Your task to perform on an android device: Go to eBay Image 0: 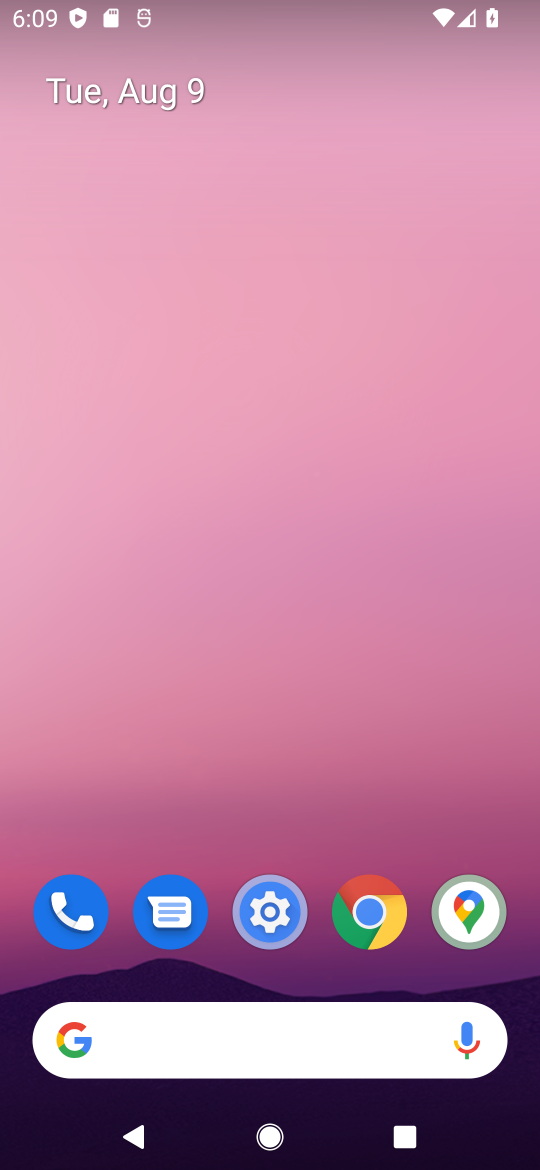
Step 0: click (72, 1040)
Your task to perform on an android device: Go to eBay Image 1: 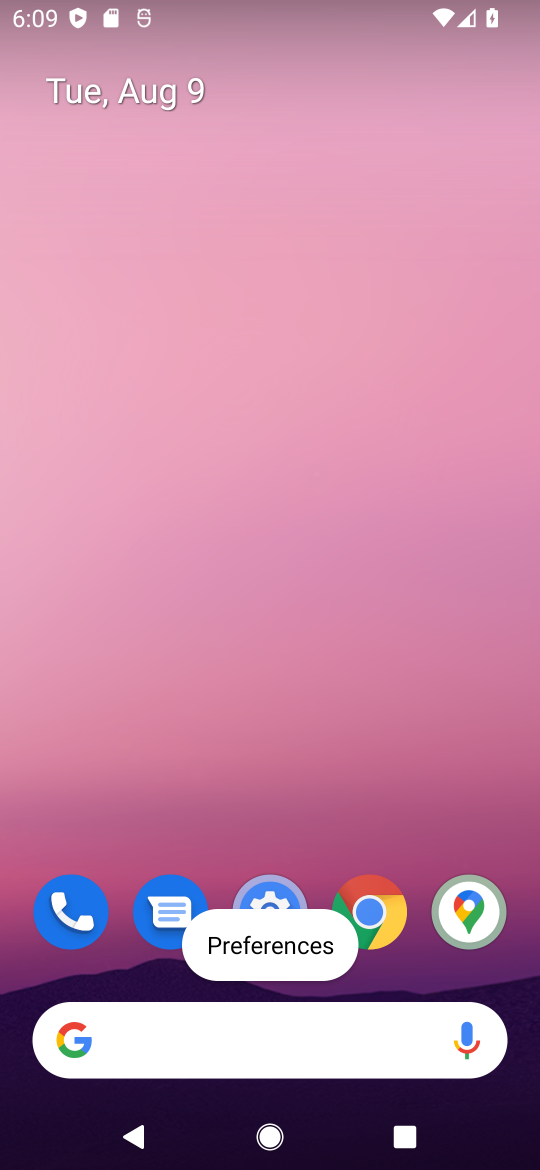
Step 1: click (58, 1052)
Your task to perform on an android device: Go to eBay Image 2: 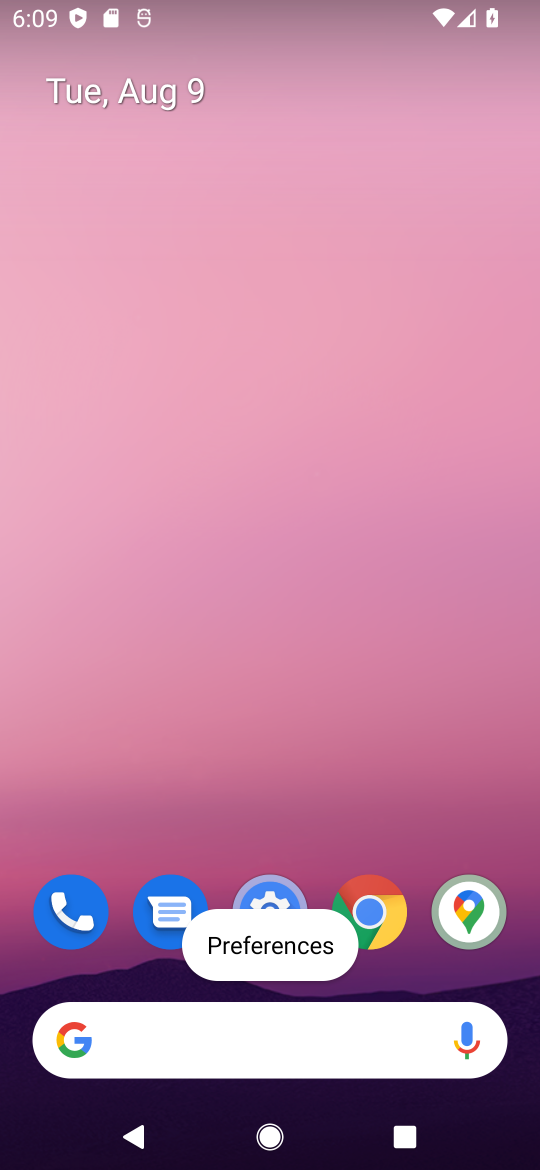
Step 2: click (64, 1035)
Your task to perform on an android device: Go to eBay Image 3: 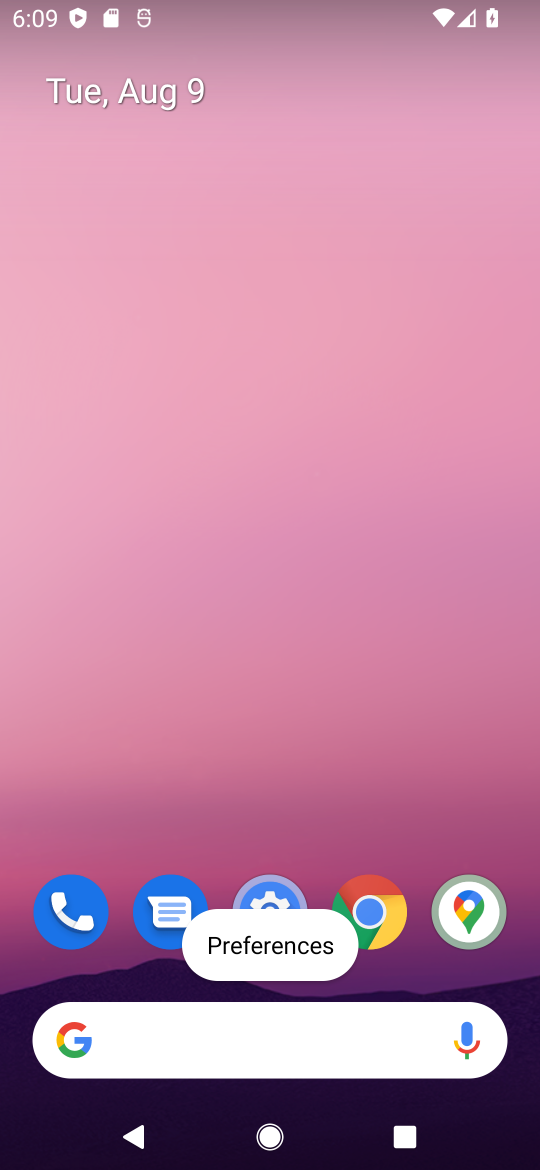
Step 3: click (65, 1042)
Your task to perform on an android device: Go to eBay Image 4: 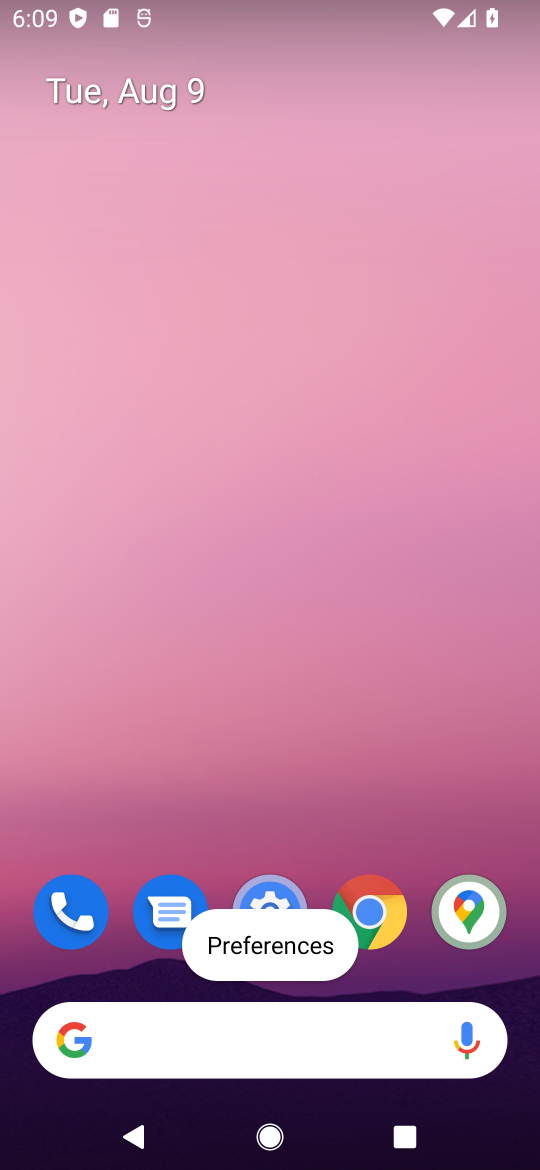
Step 4: click (83, 1034)
Your task to perform on an android device: Go to eBay Image 5: 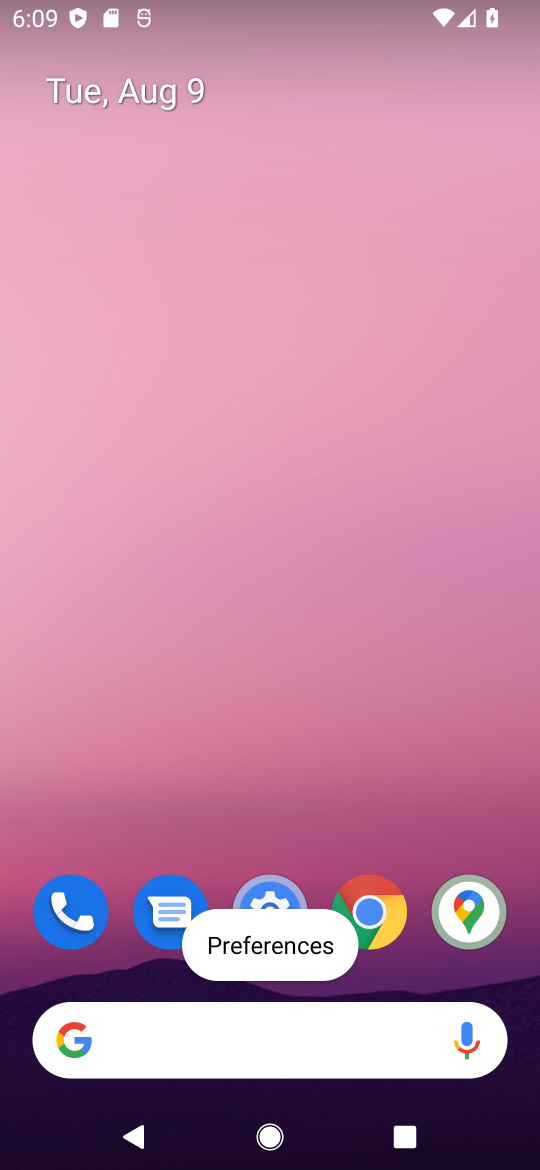
Step 5: click (70, 1052)
Your task to perform on an android device: Go to eBay Image 6: 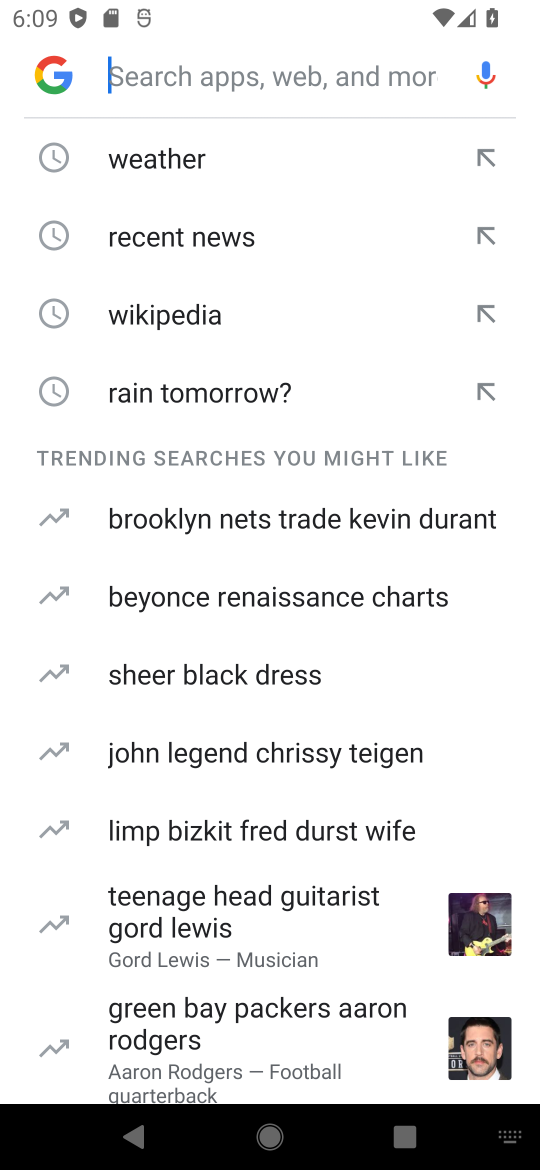
Step 6: type " eBay"
Your task to perform on an android device: Go to eBay Image 7: 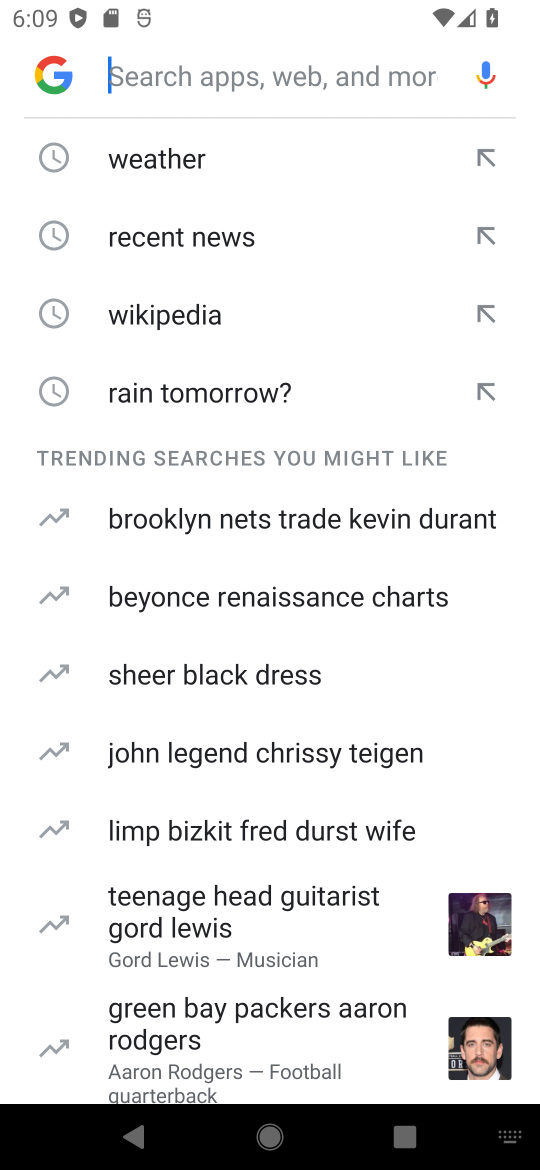
Step 7: click (215, 77)
Your task to perform on an android device: Go to eBay Image 8: 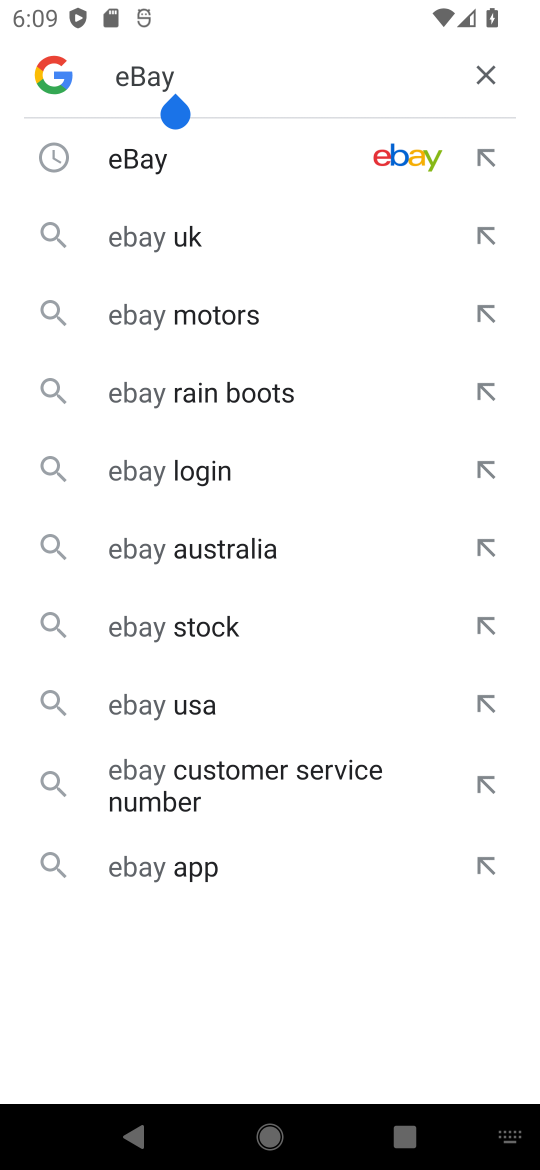
Step 8: click (396, 152)
Your task to perform on an android device: Go to eBay Image 9: 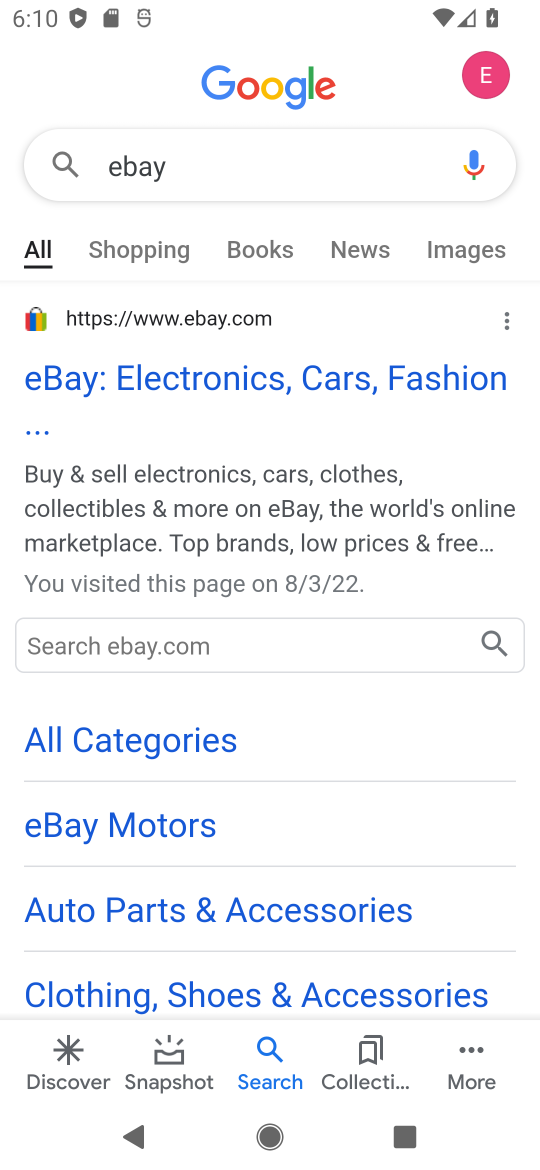
Step 9: click (151, 377)
Your task to perform on an android device: Go to eBay Image 10: 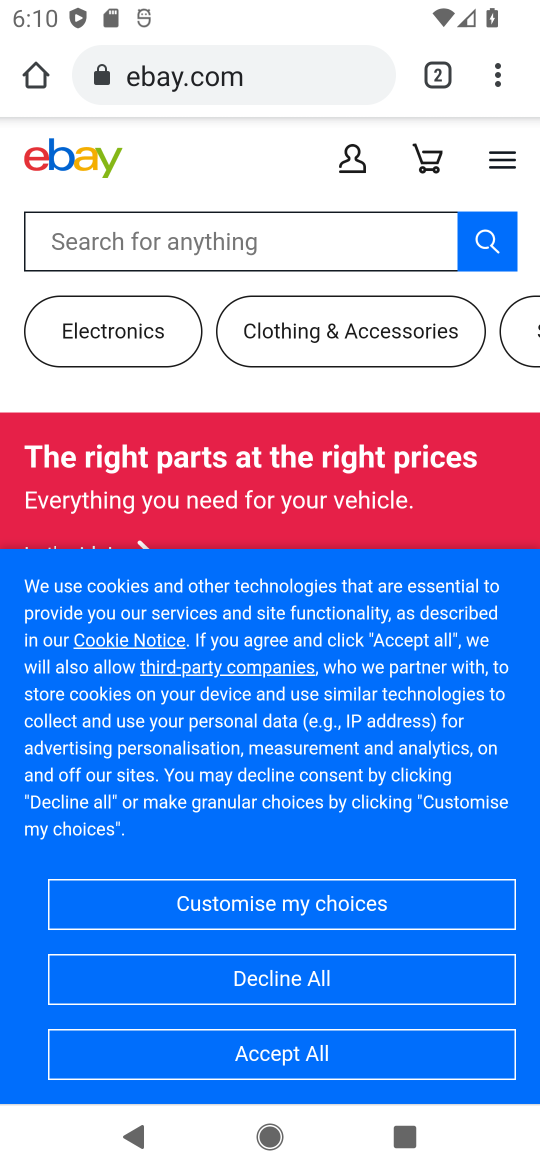
Step 10: task complete